Your task to perform on an android device: toggle wifi Image 0: 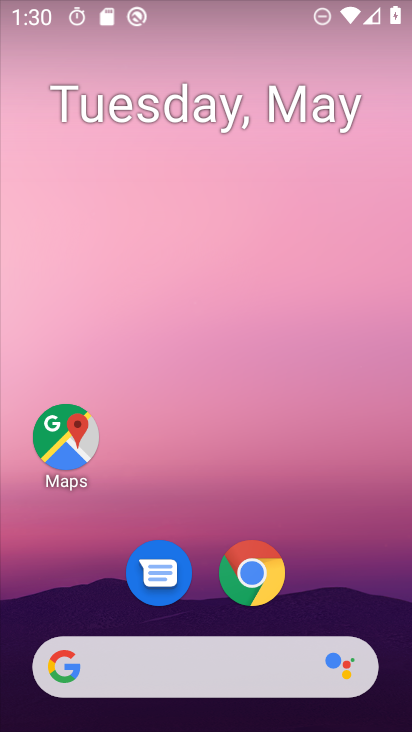
Step 0: drag from (354, 542) to (353, 64)
Your task to perform on an android device: toggle wifi Image 1: 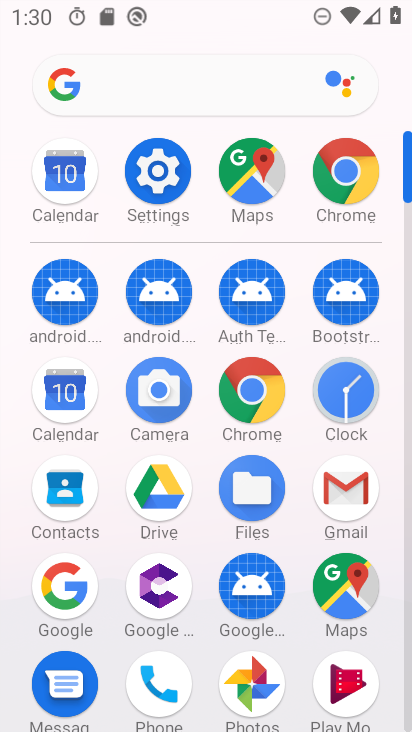
Step 1: click (175, 184)
Your task to perform on an android device: toggle wifi Image 2: 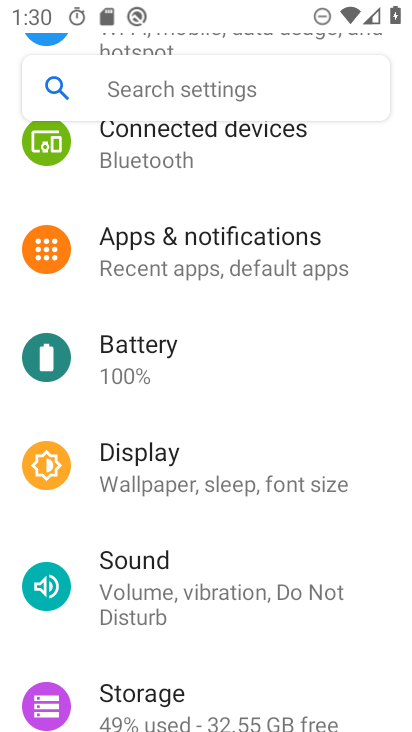
Step 2: drag from (162, 173) to (201, 465)
Your task to perform on an android device: toggle wifi Image 3: 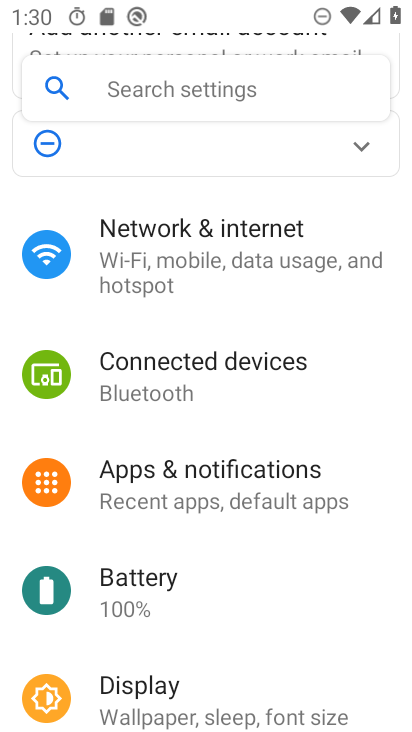
Step 3: drag from (278, 233) to (299, 522)
Your task to perform on an android device: toggle wifi Image 4: 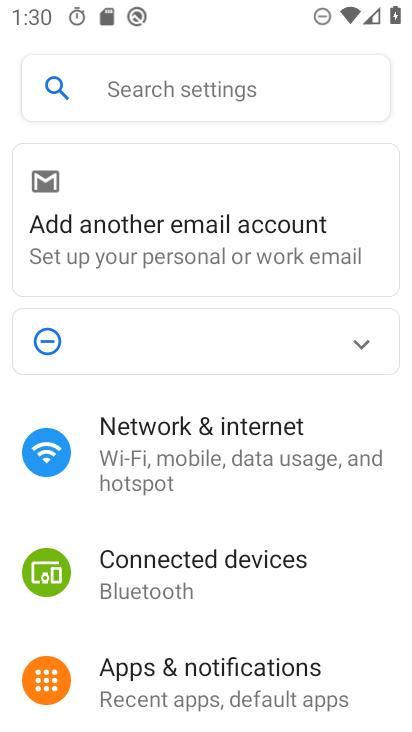
Step 4: click (185, 448)
Your task to perform on an android device: toggle wifi Image 5: 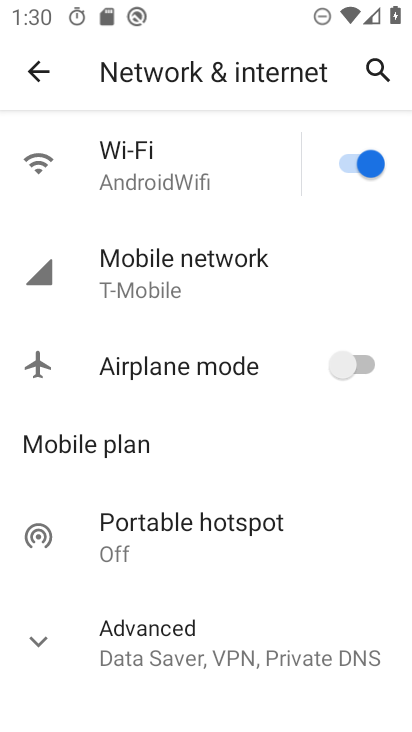
Step 5: click (348, 167)
Your task to perform on an android device: toggle wifi Image 6: 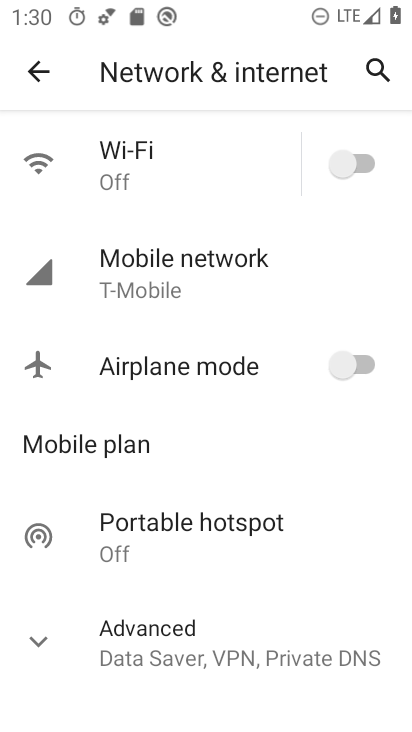
Step 6: task complete